Your task to perform on an android device: Show me recent news Image 0: 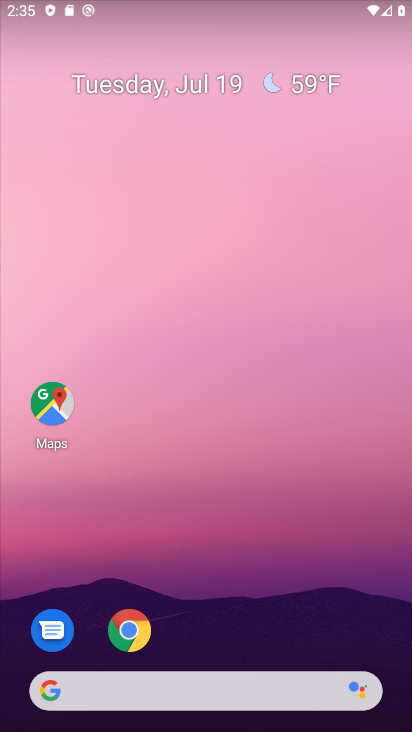
Step 0: drag from (0, 198) to (385, 532)
Your task to perform on an android device: Show me recent news Image 1: 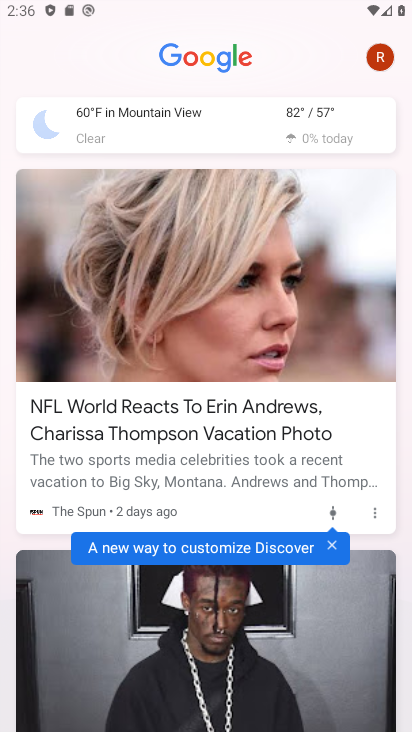
Step 1: task complete